Your task to perform on an android device: Open Google Chrome and open the bookmarks view Image 0: 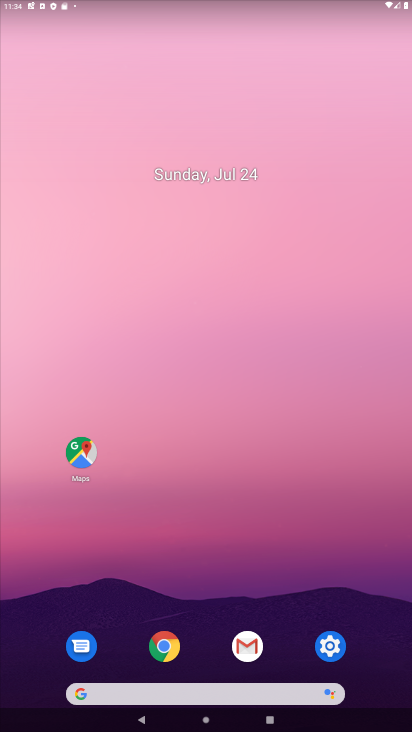
Step 0: click (164, 648)
Your task to perform on an android device: Open Google Chrome and open the bookmarks view Image 1: 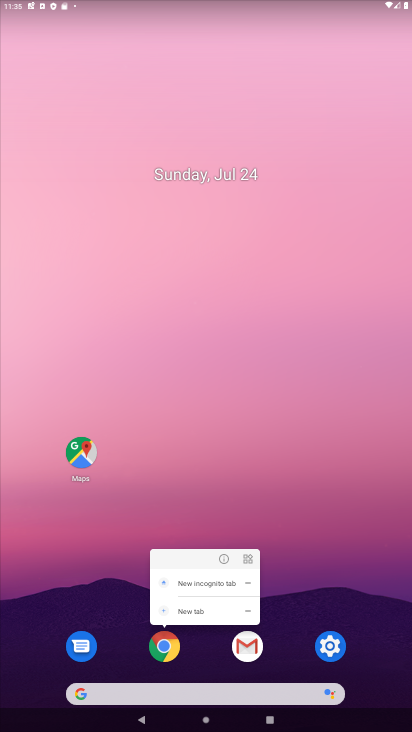
Step 1: click (164, 649)
Your task to perform on an android device: Open Google Chrome and open the bookmarks view Image 2: 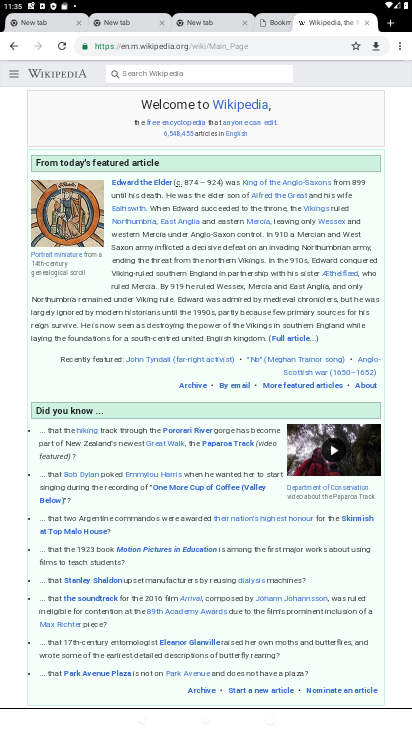
Step 2: click (399, 47)
Your task to perform on an android device: Open Google Chrome and open the bookmarks view Image 3: 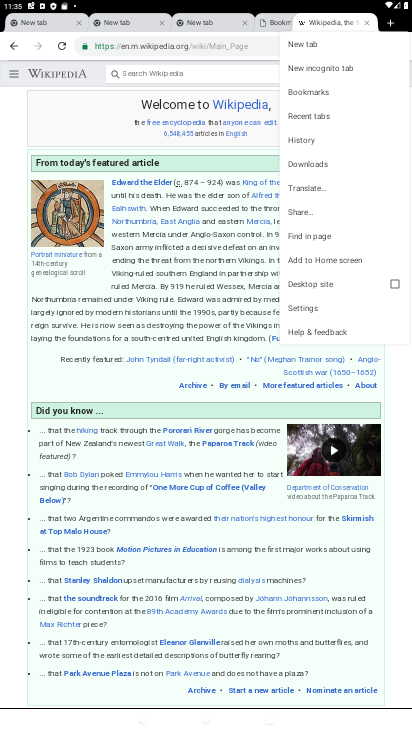
Step 3: click (315, 91)
Your task to perform on an android device: Open Google Chrome and open the bookmarks view Image 4: 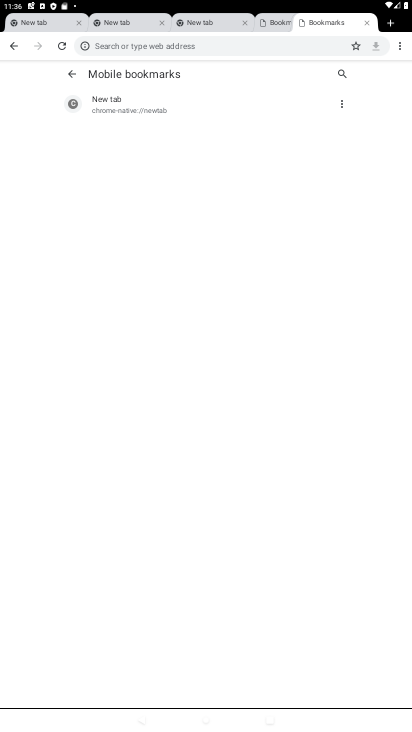
Step 4: task complete